Your task to perform on an android device: set default search engine in the chrome app Image 0: 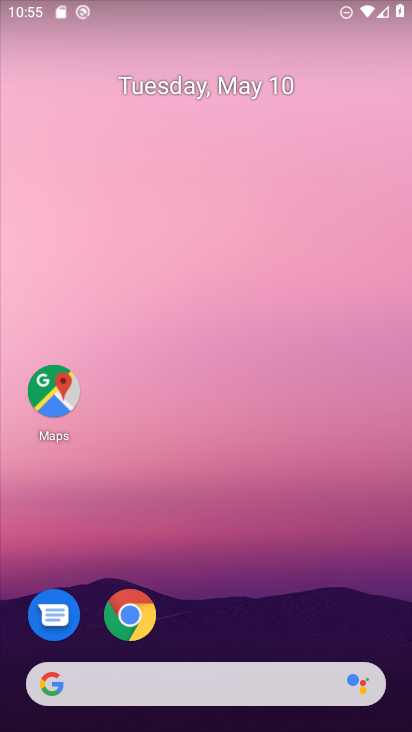
Step 0: drag from (201, 589) to (244, 174)
Your task to perform on an android device: set default search engine in the chrome app Image 1: 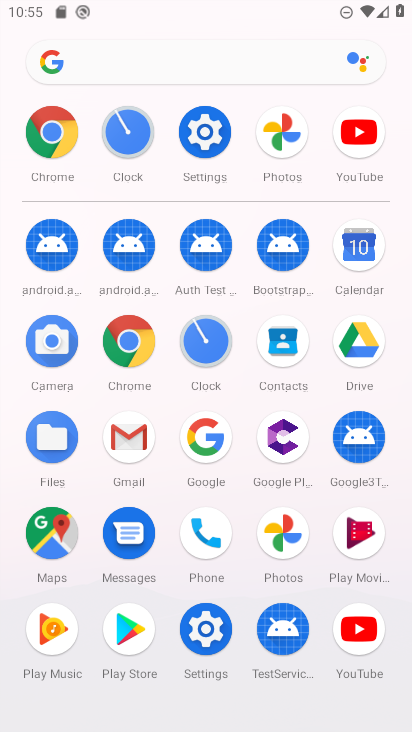
Step 1: click (47, 123)
Your task to perform on an android device: set default search engine in the chrome app Image 2: 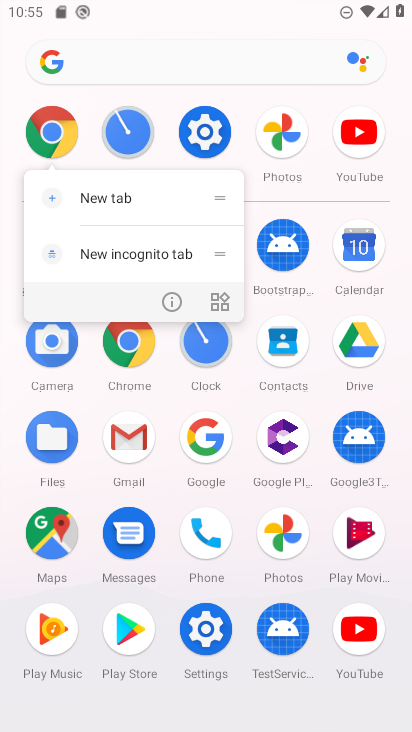
Step 2: click (166, 291)
Your task to perform on an android device: set default search engine in the chrome app Image 3: 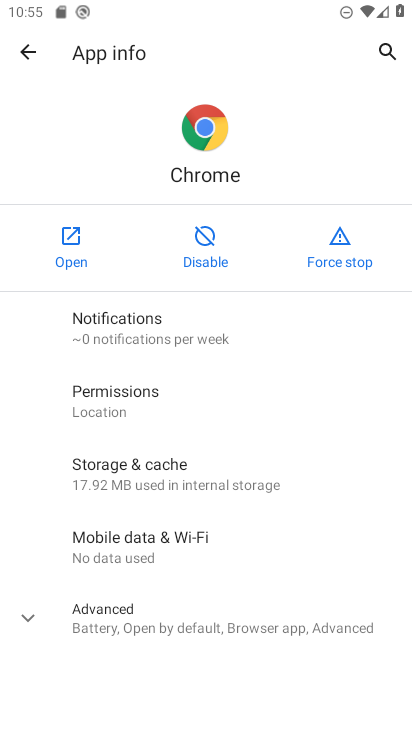
Step 3: click (84, 245)
Your task to perform on an android device: set default search engine in the chrome app Image 4: 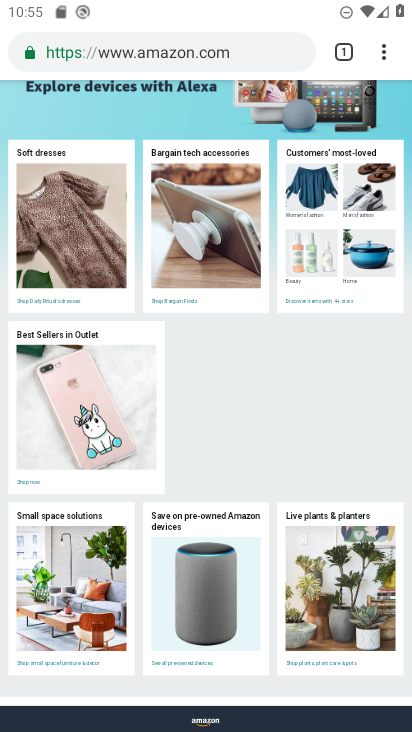
Step 4: drag from (247, 314) to (295, 651)
Your task to perform on an android device: set default search engine in the chrome app Image 5: 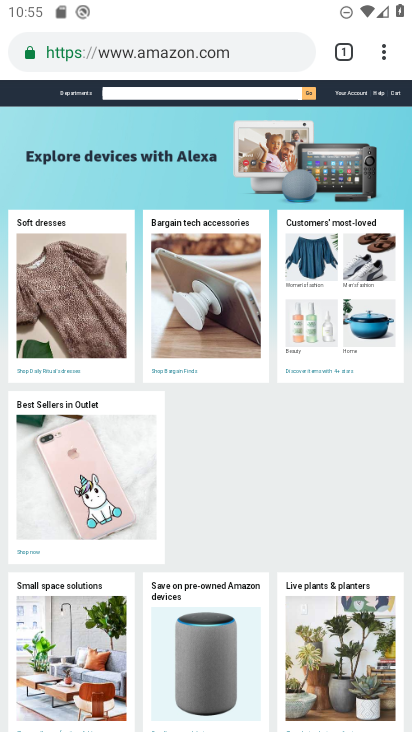
Step 5: click (381, 53)
Your task to perform on an android device: set default search engine in the chrome app Image 6: 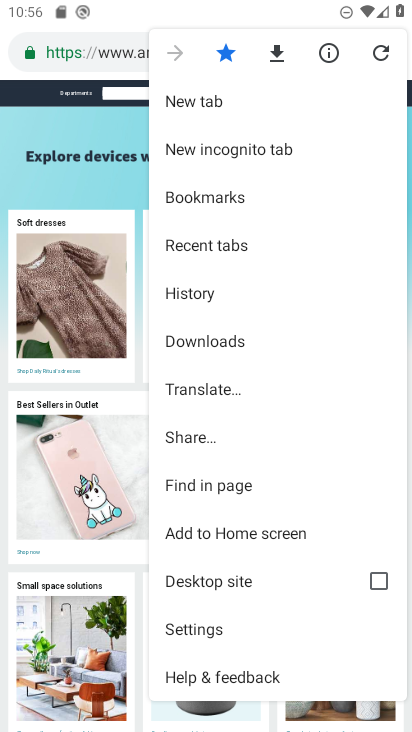
Step 6: click (206, 623)
Your task to perform on an android device: set default search engine in the chrome app Image 7: 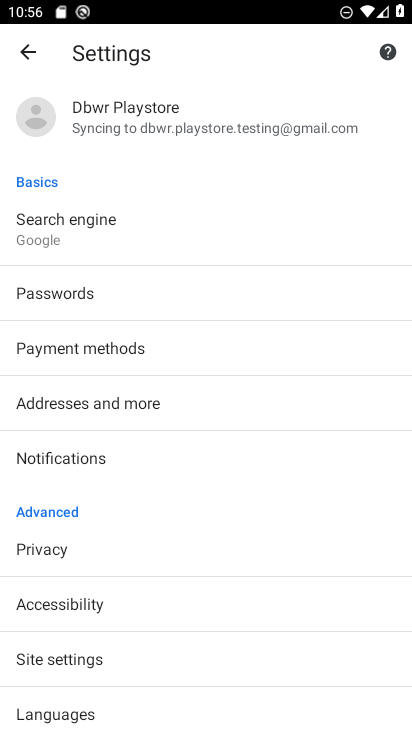
Step 7: drag from (179, 591) to (265, 221)
Your task to perform on an android device: set default search engine in the chrome app Image 8: 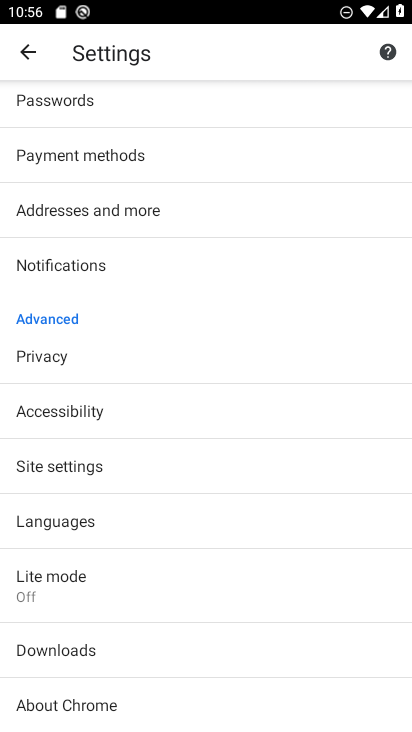
Step 8: drag from (158, 217) to (161, 580)
Your task to perform on an android device: set default search engine in the chrome app Image 9: 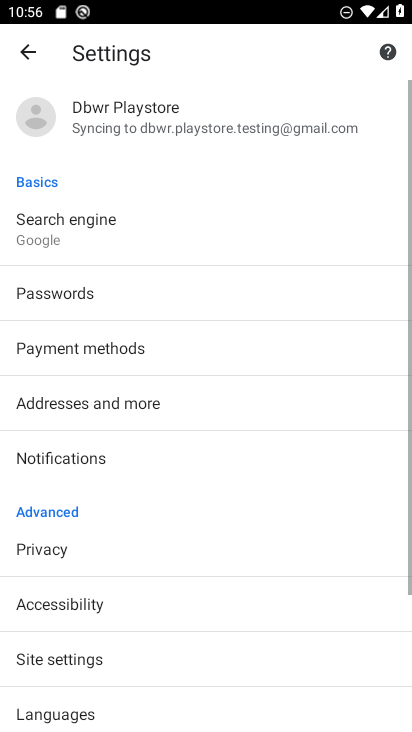
Step 9: click (104, 241)
Your task to perform on an android device: set default search engine in the chrome app Image 10: 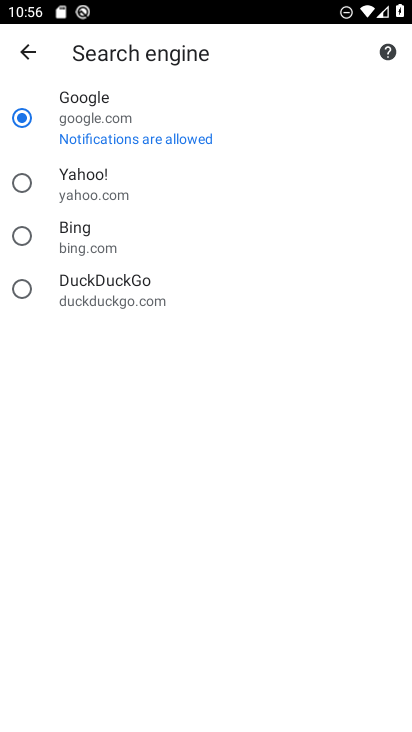
Step 10: click (53, 174)
Your task to perform on an android device: set default search engine in the chrome app Image 11: 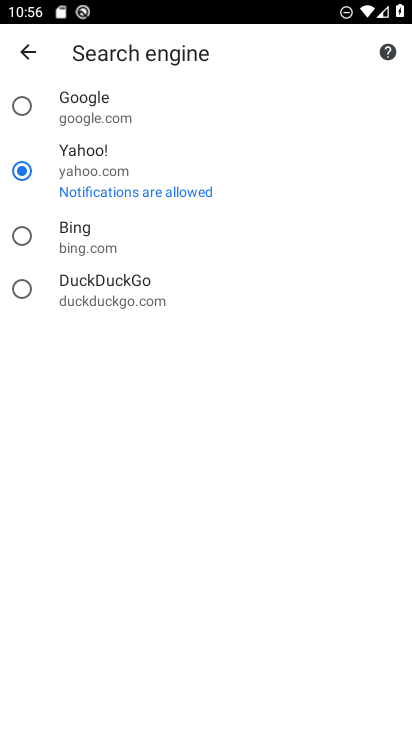
Step 11: task complete